Your task to perform on an android device: open chrome privacy settings Image 0: 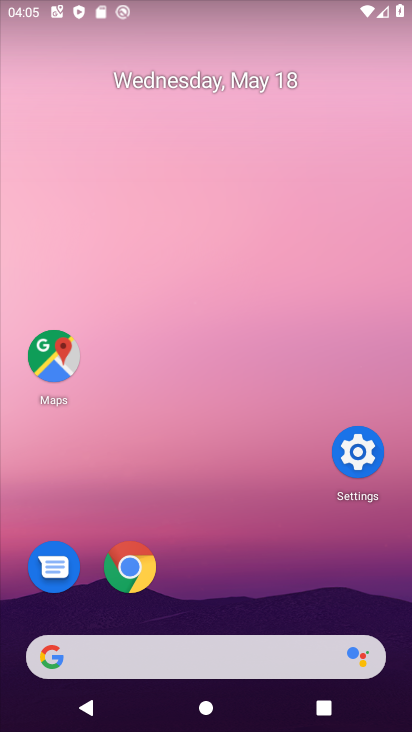
Step 0: click (140, 575)
Your task to perform on an android device: open chrome privacy settings Image 1: 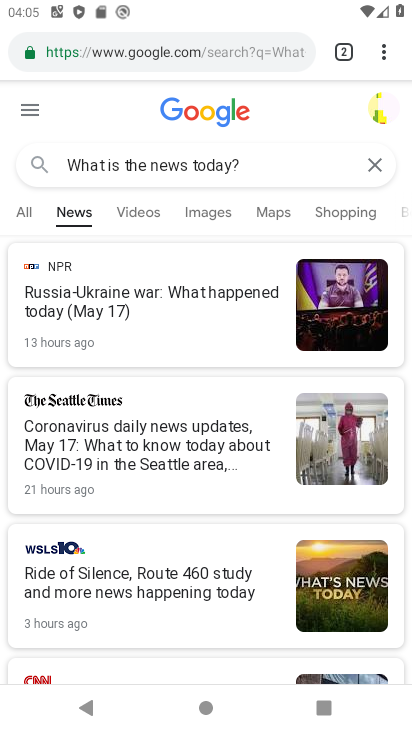
Step 1: drag from (383, 52) to (193, 577)
Your task to perform on an android device: open chrome privacy settings Image 2: 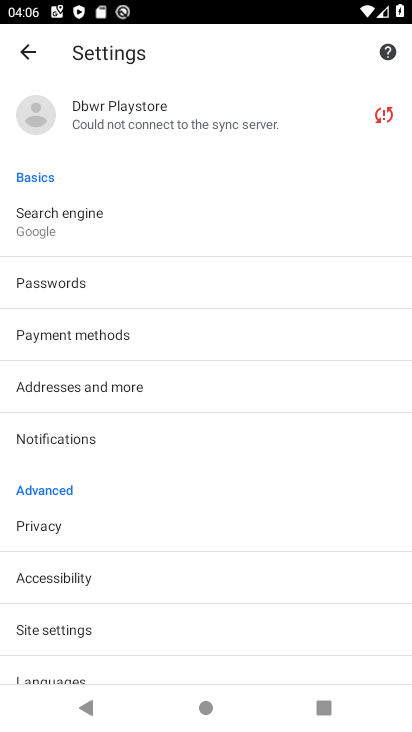
Step 2: click (39, 531)
Your task to perform on an android device: open chrome privacy settings Image 3: 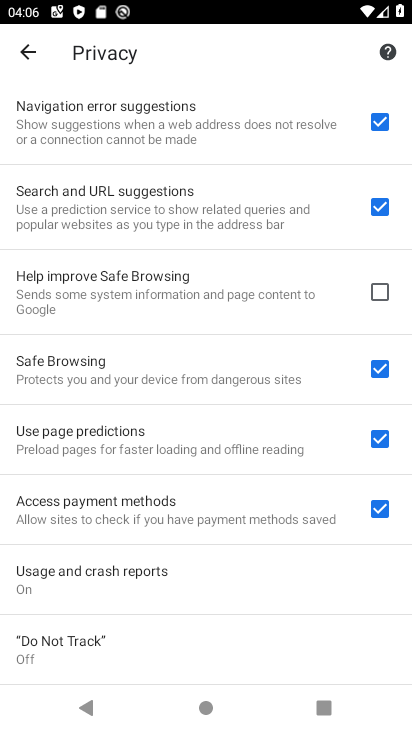
Step 3: task complete